Your task to perform on an android device: Search for seafood restaurants on Google Maps Image 0: 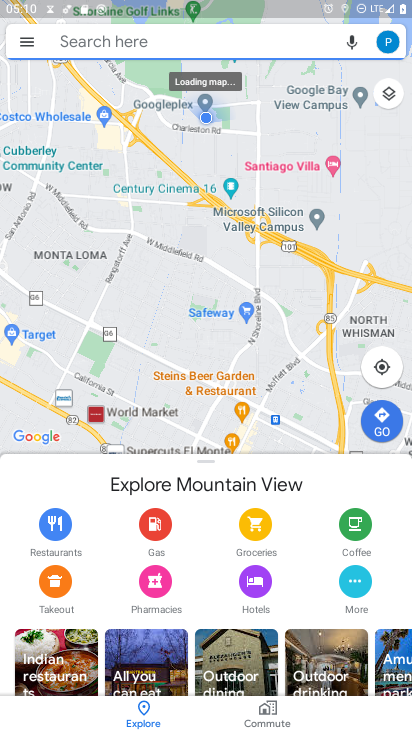
Step 0: press home button
Your task to perform on an android device: Search for seafood restaurants on Google Maps Image 1: 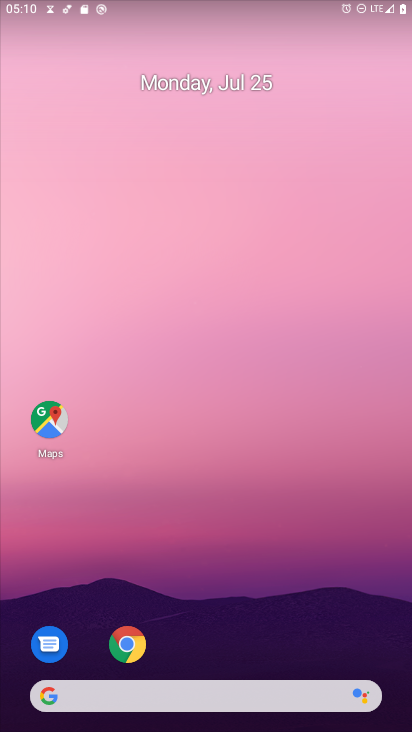
Step 1: click (55, 415)
Your task to perform on an android device: Search for seafood restaurants on Google Maps Image 2: 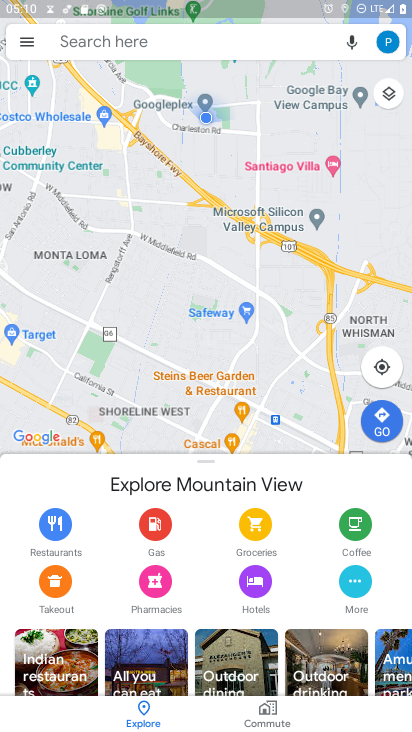
Step 2: click (160, 46)
Your task to perform on an android device: Search for seafood restaurants on Google Maps Image 3: 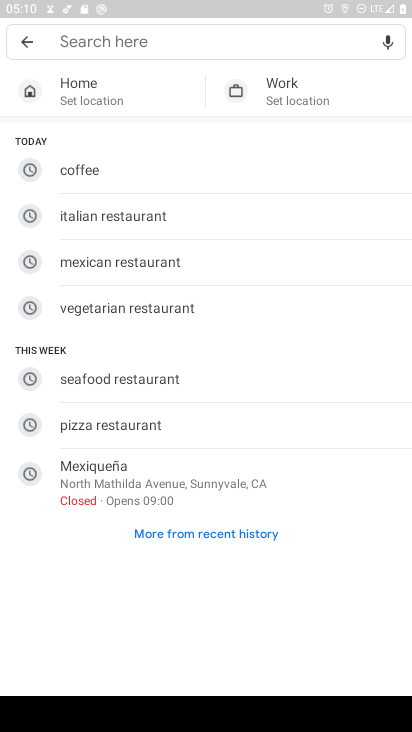
Step 3: click (90, 385)
Your task to perform on an android device: Search for seafood restaurants on Google Maps Image 4: 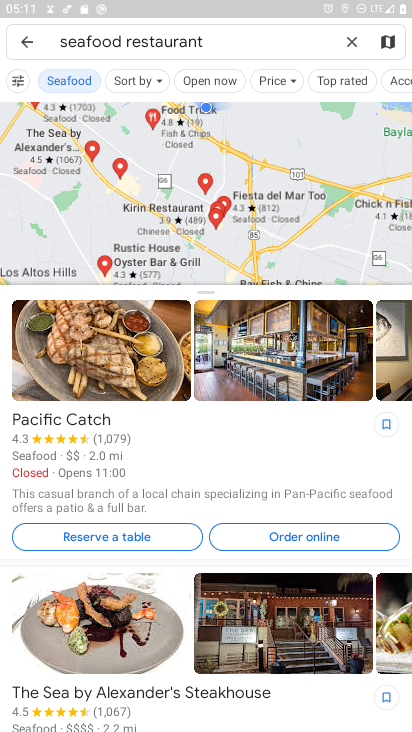
Step 4: task complete